Your task to perform on an android device: Find coffee shops on Maps Image 0: 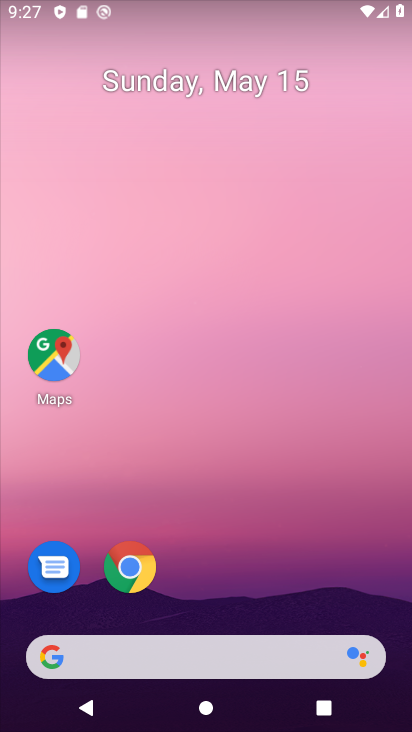
Step 0: click (45, 359)
Your task to perform on an android device: Find coffee shops on Maps Image 1: 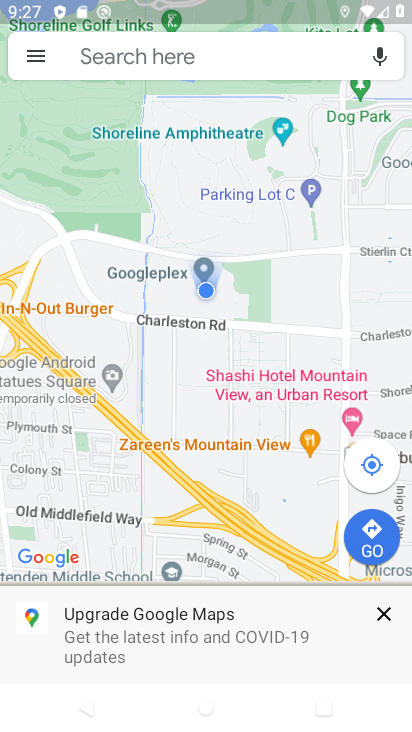
Step 1: click (205, 53)
Your task to perform on an android device: Find coffee shops on Maps Image 2: 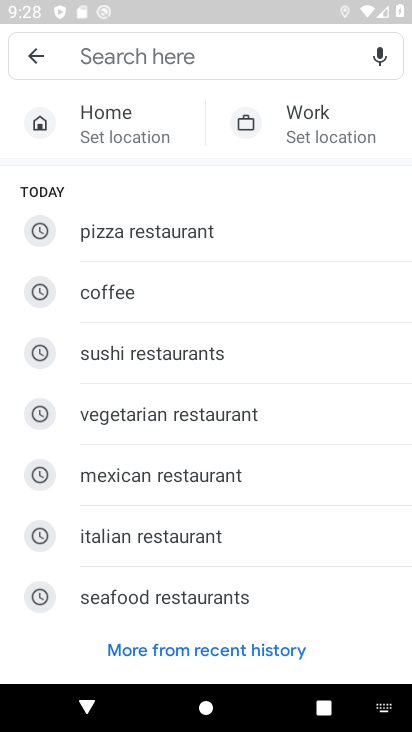
Step 2: click (171, 281)
Your task to perform on an android device: Find coffee shops on Maps Image 3: 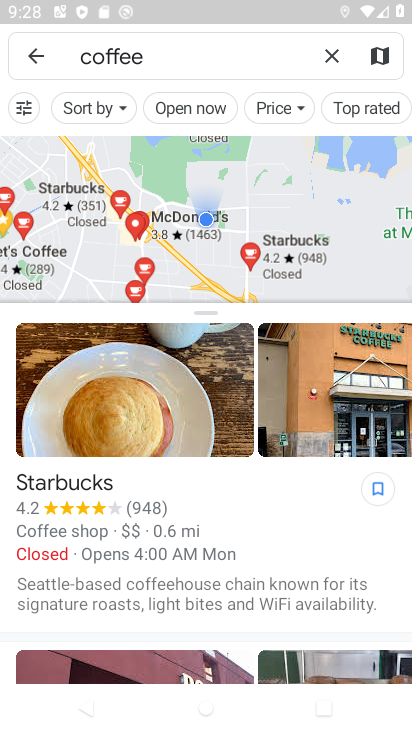
Step 3: task complete